Your task to perform on an android device: see tabs open on other devices in the chrome app Image 0: 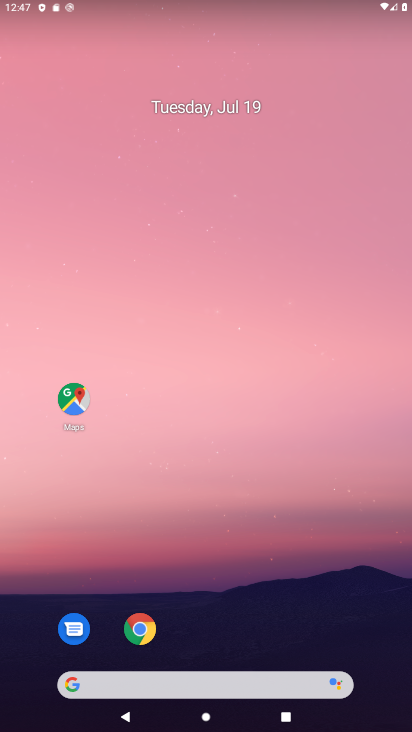
Step 0: click (144, 625)
Your task to perform on an android device: see tabs open on other devices in the chrome app Image 1: 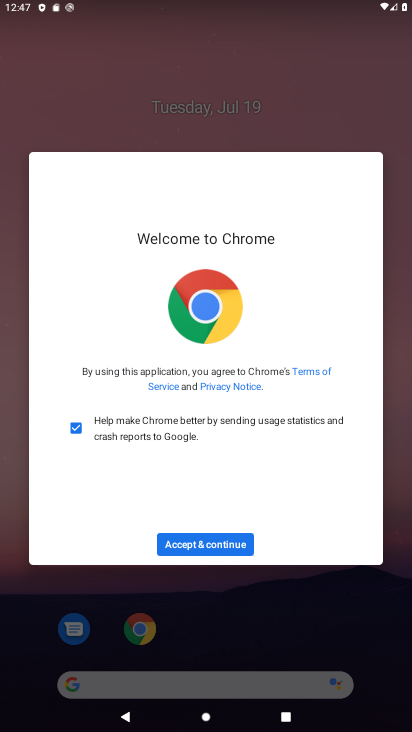
Step 1: click (217, 549)
Your task to perform on an android device: see tabs open on other devices in the chrome app Image 2: 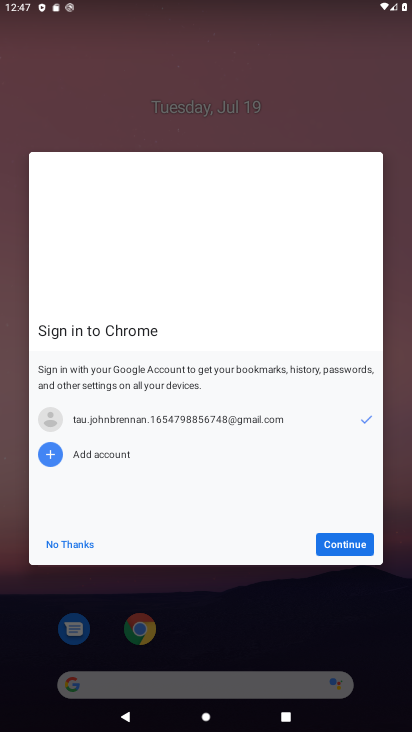
Step 2: click (362, 541)
Your task to perform on an android device: see tabs open on other devices in the chrome app Image 3: 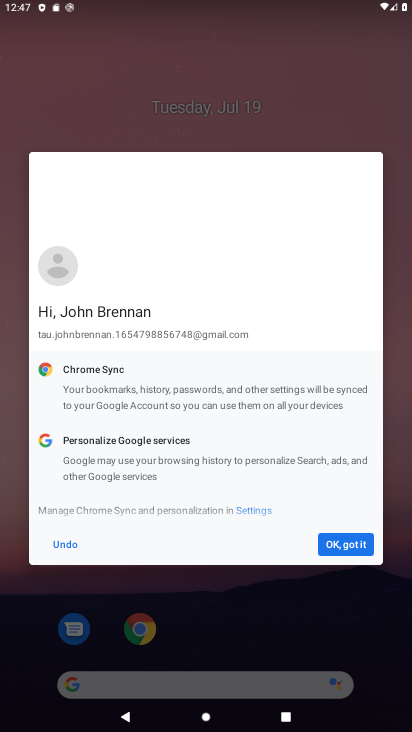
Step 3: click (346, 543)
Your task to perform on an android device: see tabs open on other devices in the chrome app Image 4: 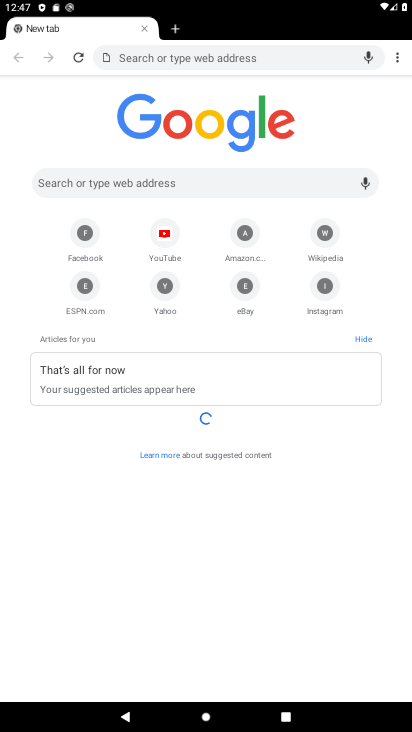
Step 4: click (399, 60)
Your task to perform on an android device: see tabs open on other devices in the chrome app Image 5: 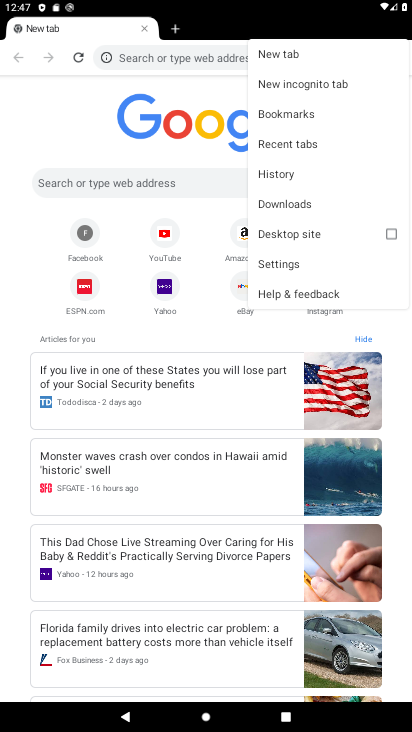
Step 5: click (292, 149)
Your task to perform on an android device: see tabs open on other devices in the chrome app Image 6: 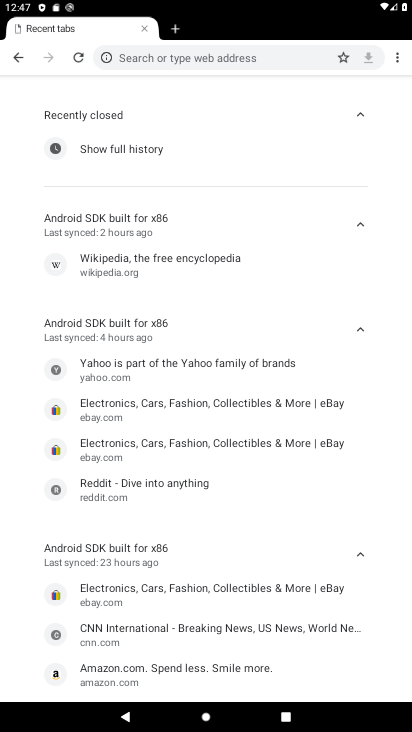
Step 6: task complete